Your task to perform on an android device: turn off smart reply in the gmail app Image 0: 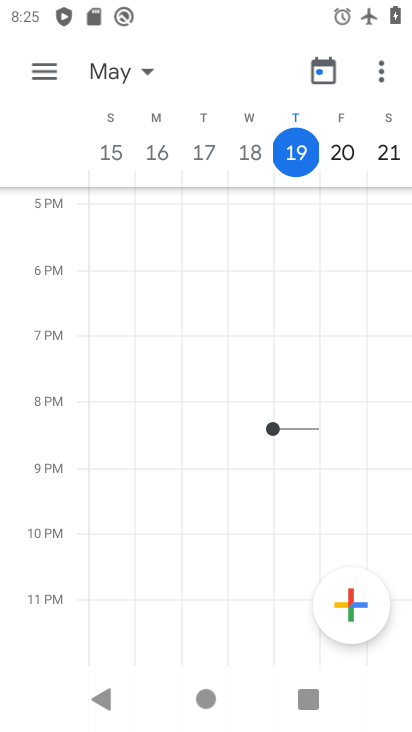
Step 0: press home button
Your task to perform on an android device: turn off smart reply in the gmail app Image 1: 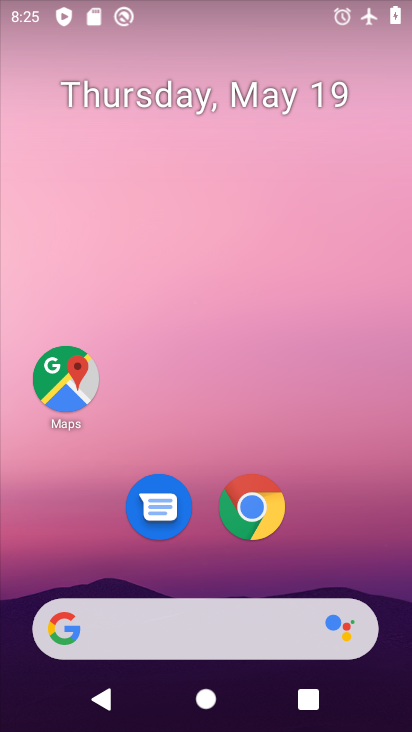
Step 1: drag from (261, 724) to (263, 205)
Your task to perform on an android device: turn off smart reply in the gmail app Image 2: 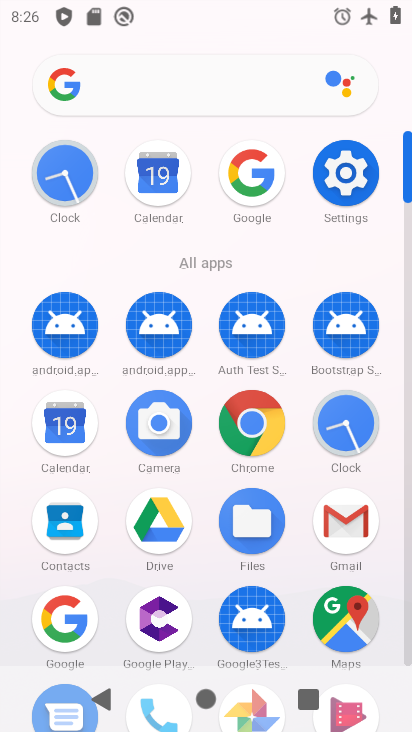
Step 2: click (348, 520)
Your task to perform on an android device: turn off smart reply in the gmail app Image 3: 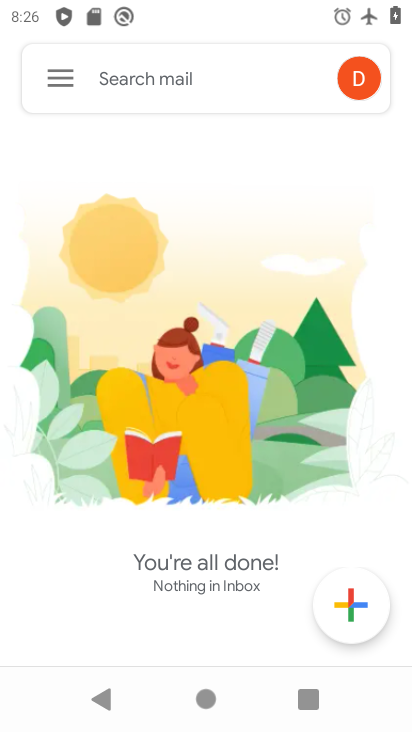
Step 3: click (57, 71)
Your task to perform on an android device: turn off smart reply in the gmail app Image 4: 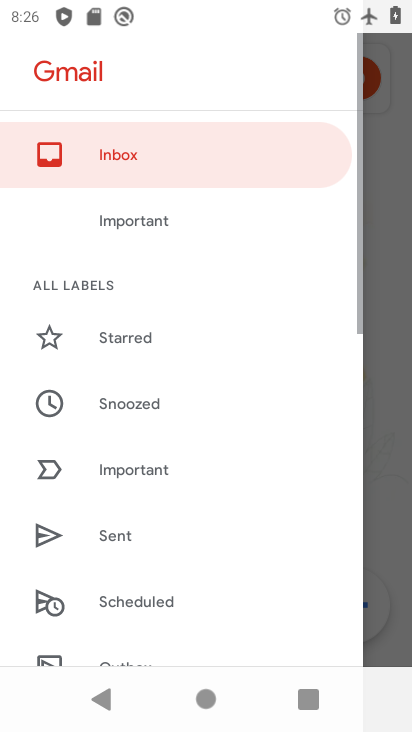
Step 4: drag from (131, 606) to (132, 157)
Your task to perform on an android device: turn off smart reply in the gmail app Image 5: 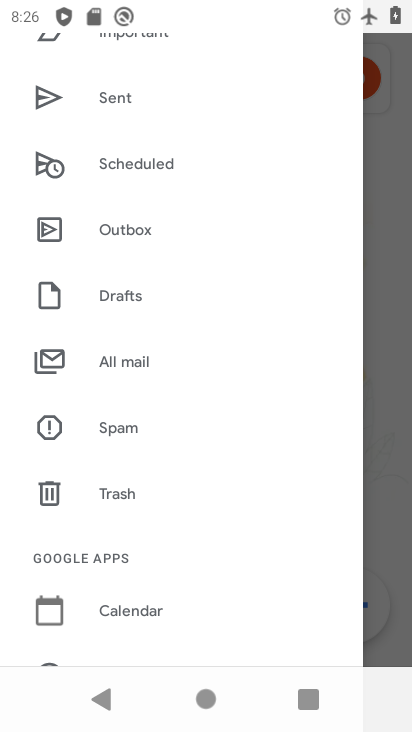
Step 5: drag from (122, 630) to (123, 228)
Your task to perform on an android device: turn off smart reply in the gmail app Image 6: 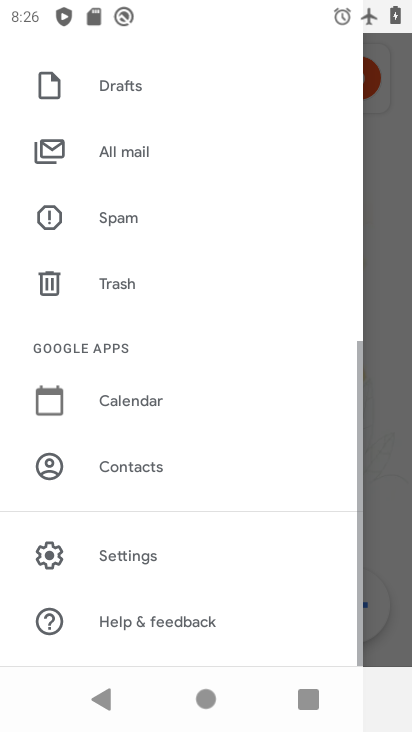
Step 6: click (138, 549)
Your task to perform on an android device: turn off smart reply in the gmail app Image 7: 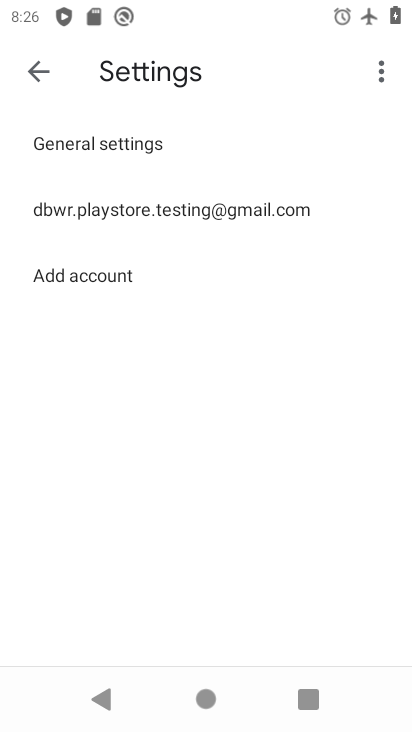
Step 7: click (123, 211)
Your task to perform on an android device: turn off smart reply in the gmail app Image 8: 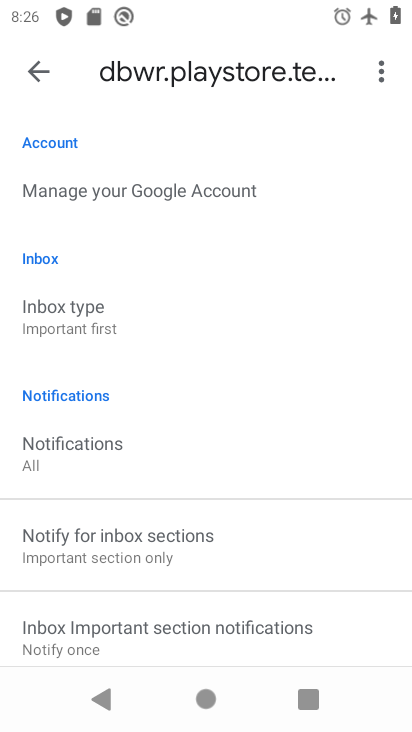
Step 8: drag from (153, 603) to (155, 262)
Your task to perform on an android device: turn off smart reply in the gmail app Image 9: 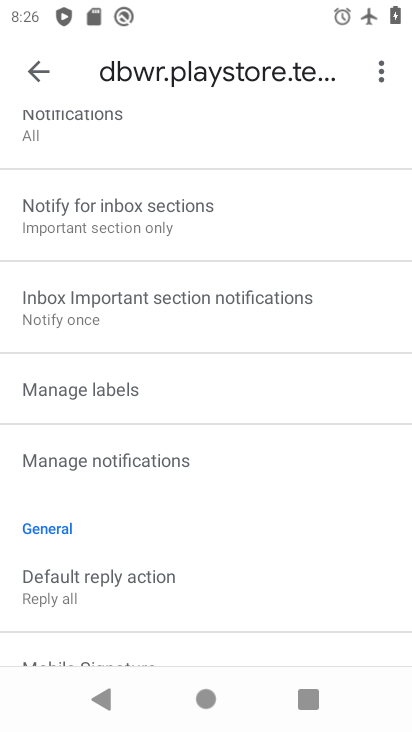
Step 9: drag from (189, 572) to (193, 259)
Your task to perform on an android device: turn off smart reply in the gmail app Image 10: 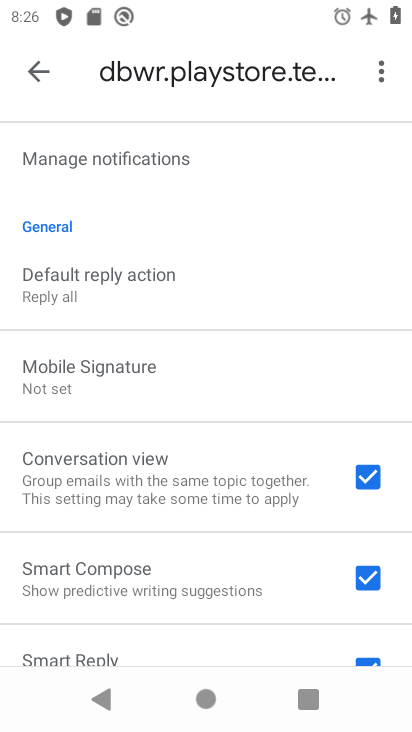
Step 10: drag from (187, 565) to (187, 279)
Your task to perform on an android device: turn off smart reply in the gmail app Image 11: 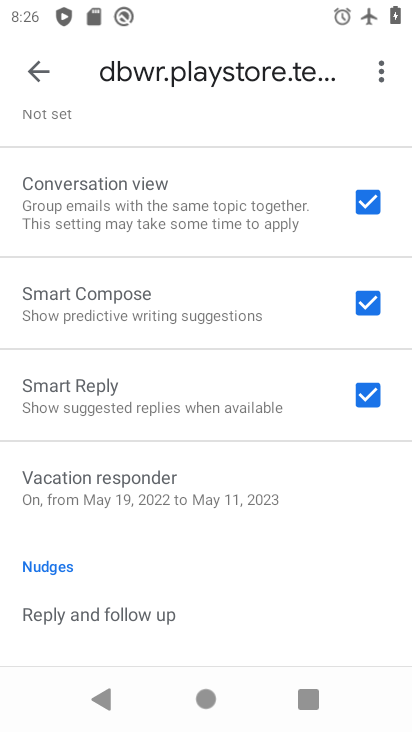
Step 11: click (365, 394)
Your task to perform on an android device: turn off smart reply in the gmail app Image 12: 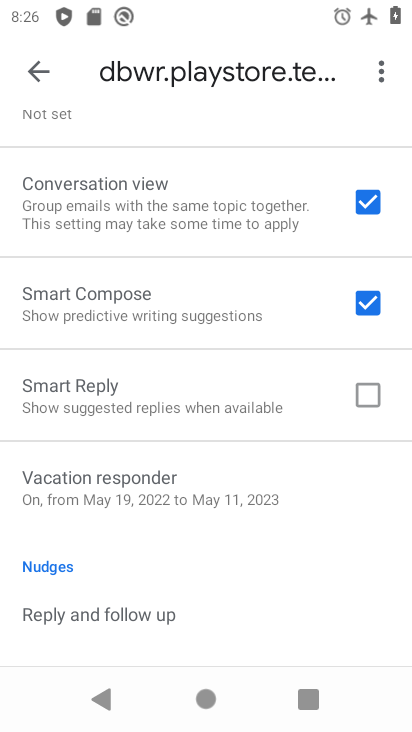
Step 12: task complete